Your task to perform on an android device: open chrome and create a bookmark for the current page Image 0: 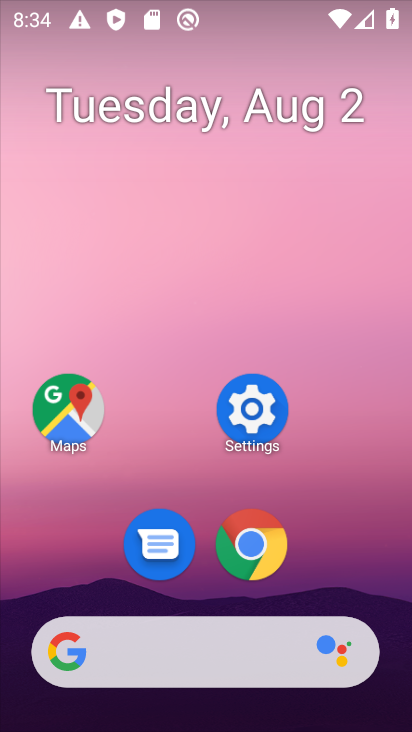
Step 0: click (263, 537)
Your task to perform on an android device: open chrome and create a bookmark for the current page Image 1: 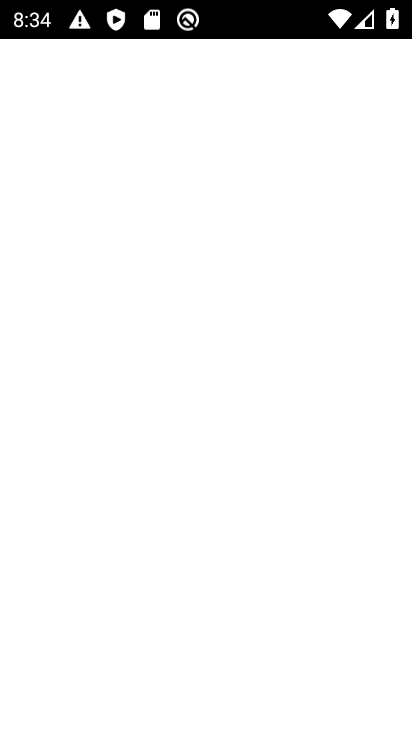
Step 1: click (263, 537)
Your task to perform on an android device: open chrome and create a bookmark for the current page Image 2: 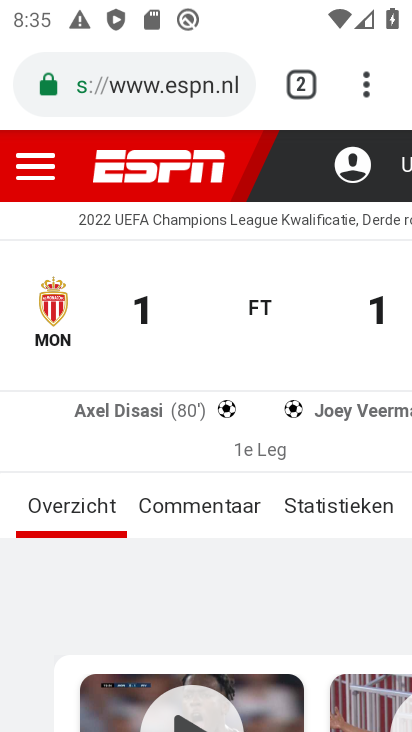
Step 2: task complete